Your task to perform on an android device: Open calendar and show me the fourth week of next month Image 0: 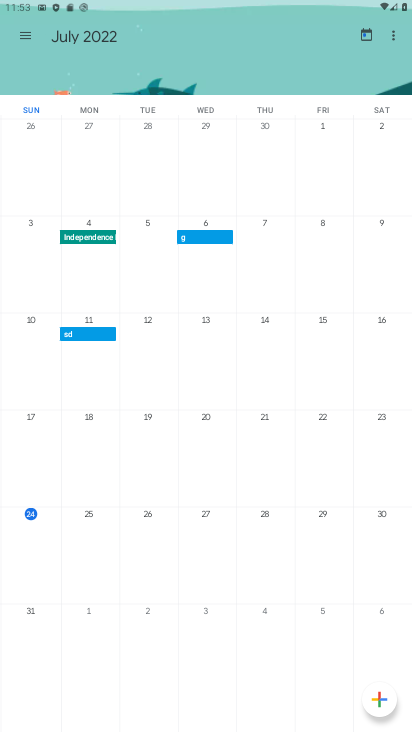
Step 0: press home button
Your task to perform on an android device: Open calendar and show me the fourth week of next month Image 1: 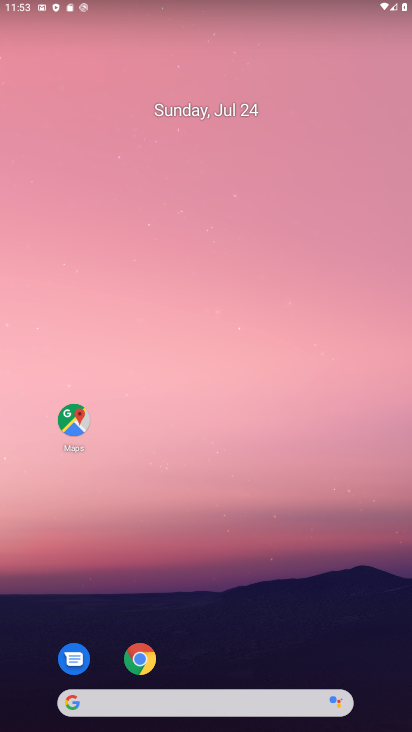
Step 1: drag from (215, 611) to (210, 20)
Your task to perform on an android device: Open calendar and show me the fourth week of next month Image 2: 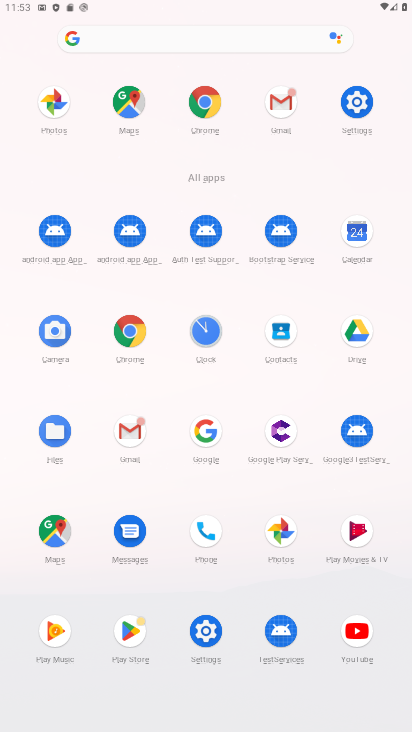
Step 2: click (358, 236)
Your task to perform on an android device: Open calendar and show me the fourth week of next month Image 3: 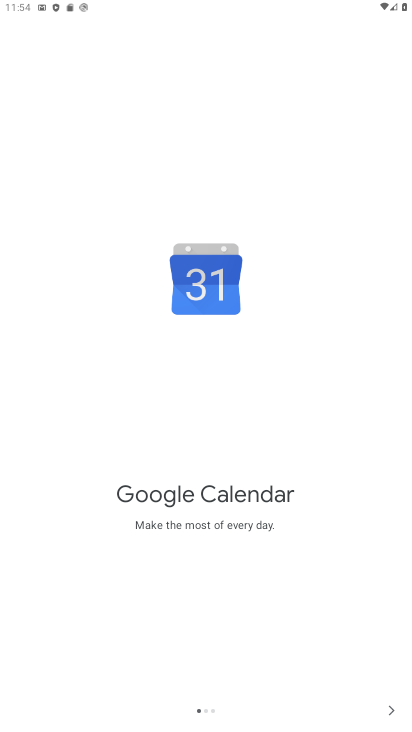
Step 3: click (389, 714)
Your task to perform on an android device: Open calendar and show me the fourth week of next month Image 4: 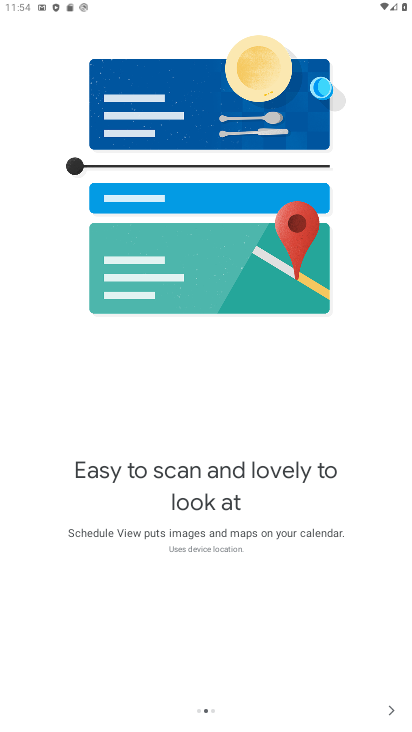
Step 4: click (384, 702)
Your task to perform on an android device: Open calendar and show me the fourth week of next month Image 5: 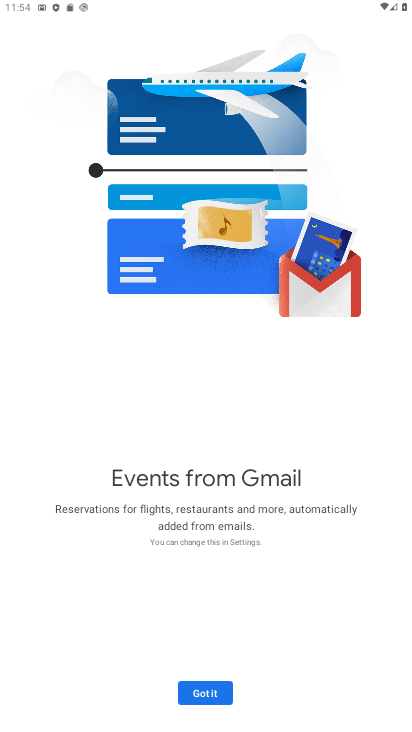
Step 5: click (224, 689)
Your task to perform on an android device: Open calendar and show me the fourth week of next month Image 6: 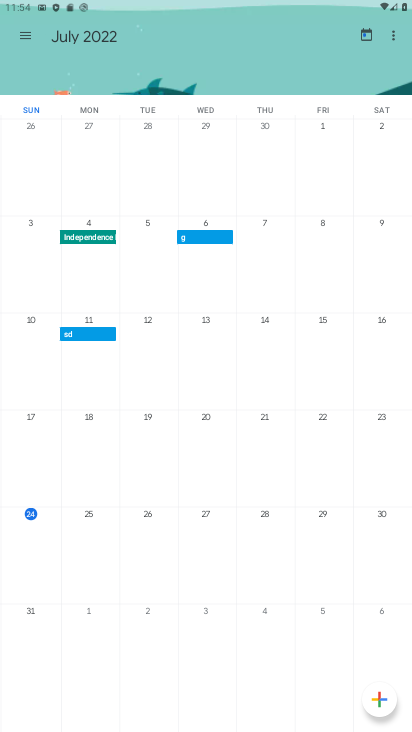
Step 6: click (25, 22)
Your task to perform on an android device: Open calendar and show me the fourth week of next month Image 7: 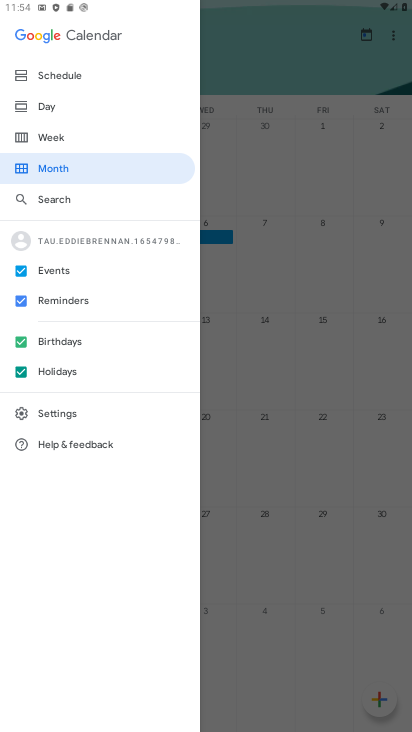
Step 7: click (44, 125)
Your task to perform on an android device: Open calendar and show me the fourth week of next month Image 8: 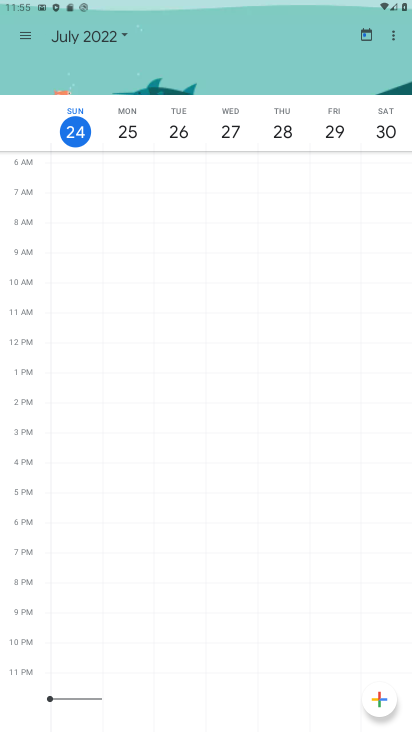
Step 8: click (114, 34)
Your task to perform on an android device: Open calendar and show me the fourth week of next month Image 9: 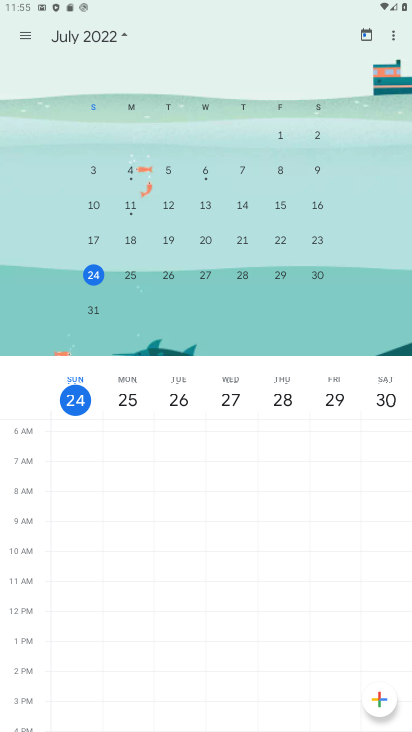
Step 9: drag from (314, 233) to (11, 215)
Your task to perform on an android device: Open calendar and show me the fourth week of next month Image 10: 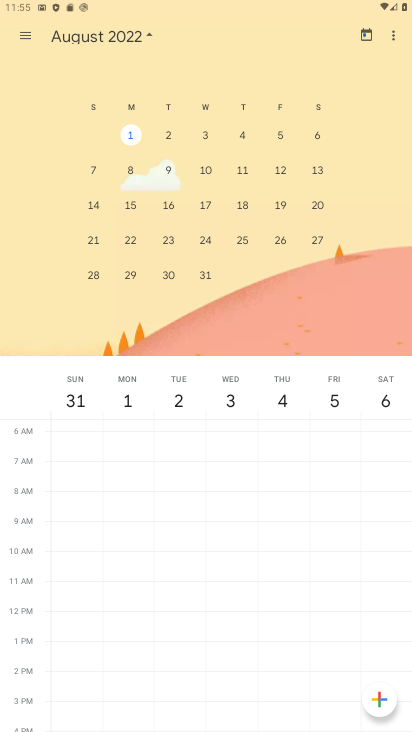
Step 10: click (91, 236)
Your task to perform on an android device: Open calendar and show me the fourth week of next month Image 11: 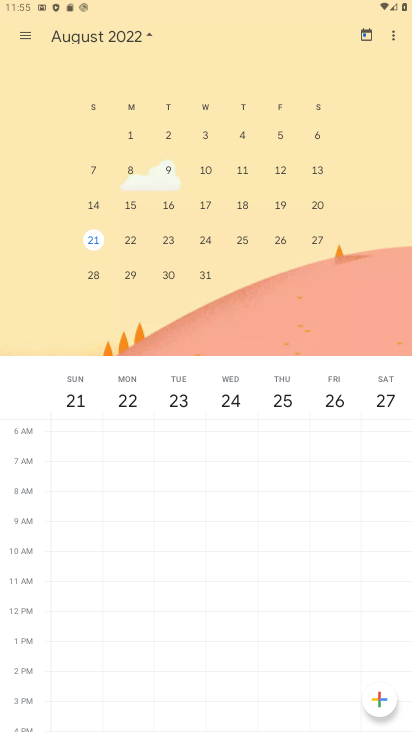
Step 11: click (144, 36)
Your task to perform on an android device: Open calendar and show me the fourth week of next month Image 12: 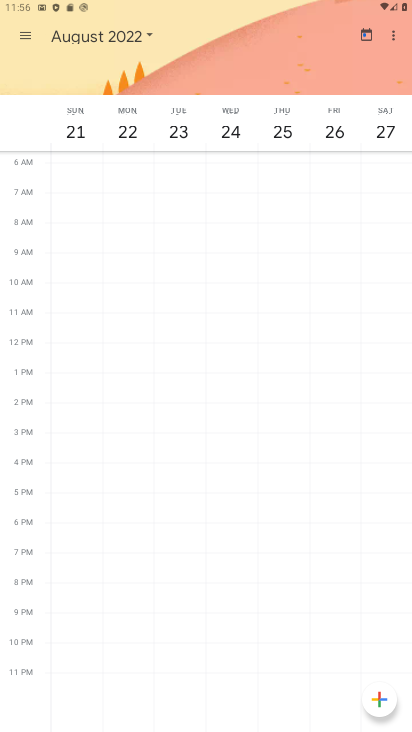
Step 12: task complete